Your task to perform on an android device: turn on notifications settings in the gmail app Image 0: 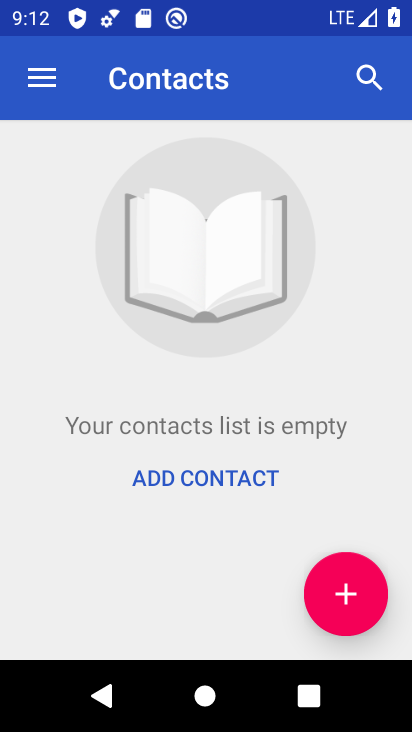
Step 0: press home button
Your task to perform on an android device: turn on notifications settings in the gmail app Image 1: 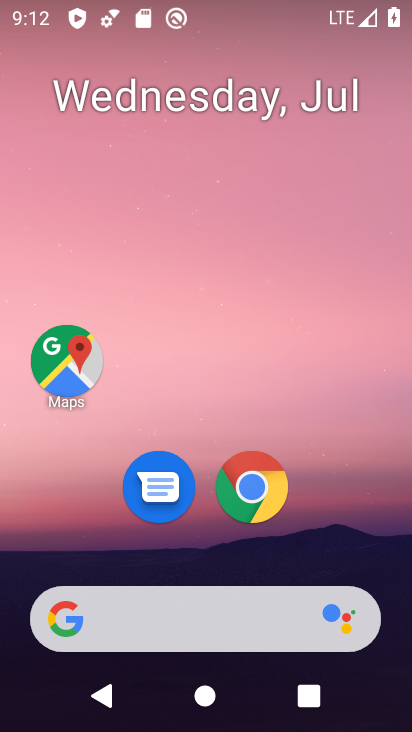
Step 1: drag from (184, 566) to (150, 159)
Your task to perform on an android device: turn on notifications settings in the gmail app Image 2: 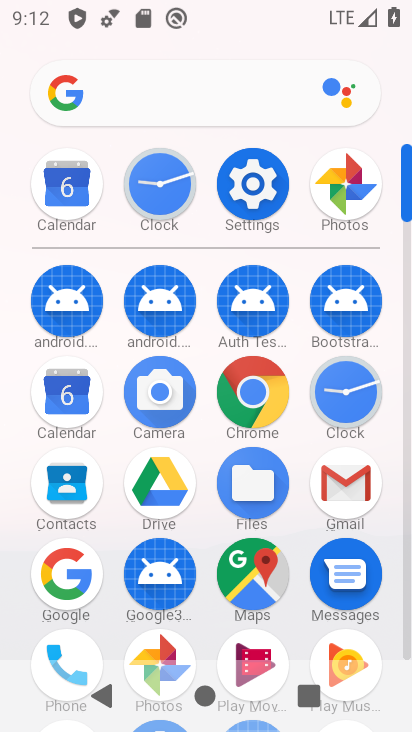
Step 2: click (354, 491)
Your task to perform on an android device: turn on notifications settings in the gmail app Image 3: 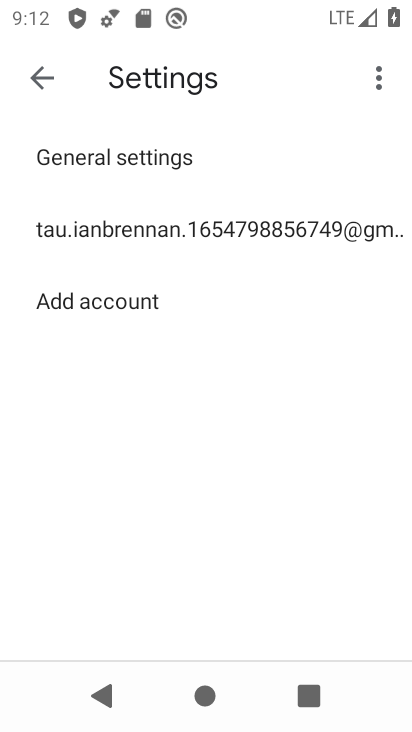
Step 3: click (89, 170)
Your task to perform on an android device: turn on notifications settings in the gmail app Image 4: 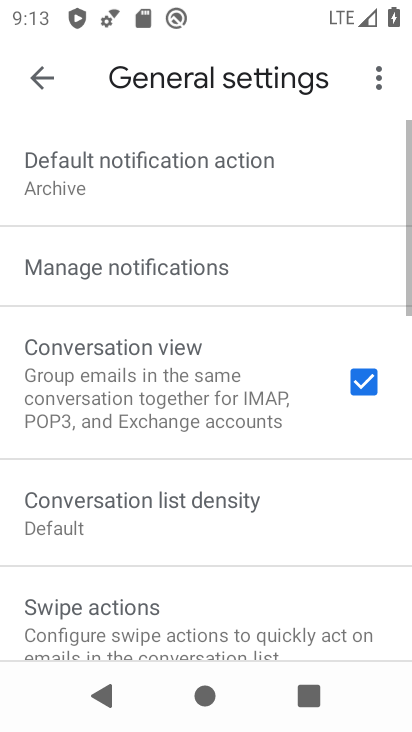
Step 4: click (117, 267)
Your task to perform on an android device: turn on notifications settings in the gmail app Image 5: 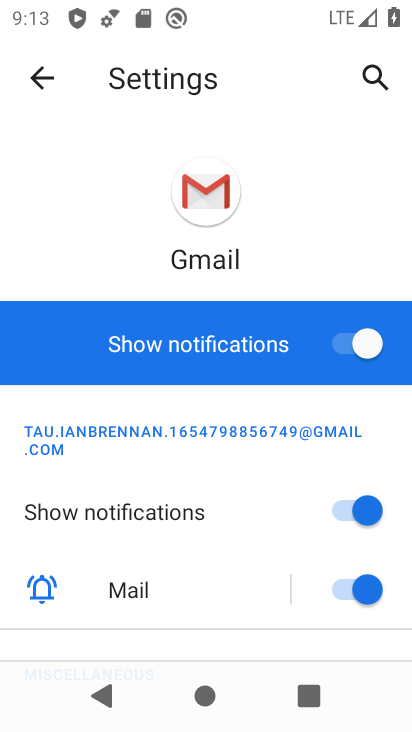
Step 5: task complete